Your task to perform on an android device: toggle translation in the chrome app Image 0: 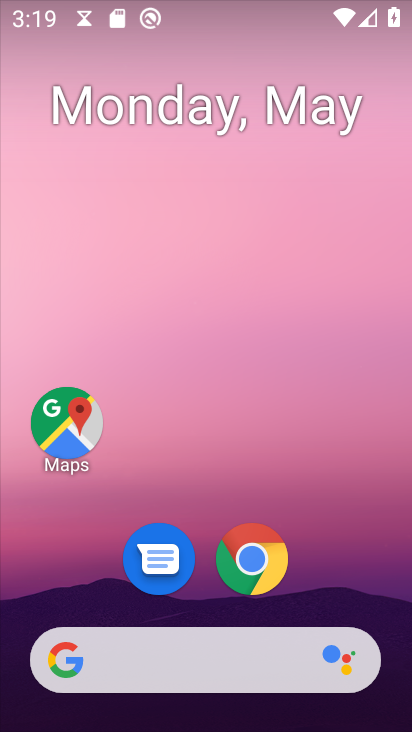
Step 0: drag from (295, 599) to (320, 316)
Your task to perform on an android device: toggle translation in the chrome app Image 1: 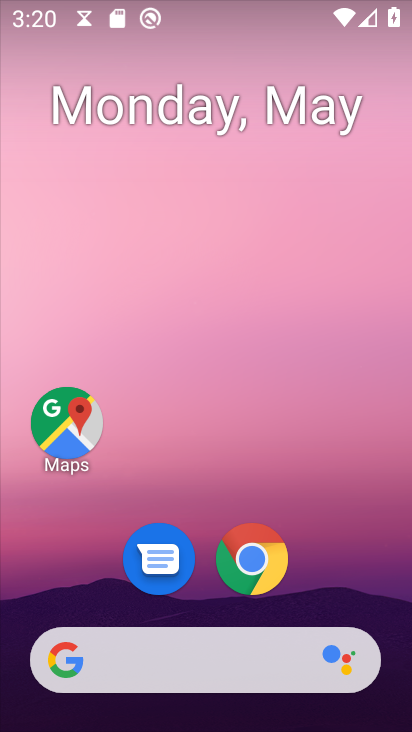
Step 1: click (253, 549)
Your task to perform on an android device: toggle translation in the chrome app Image 2: 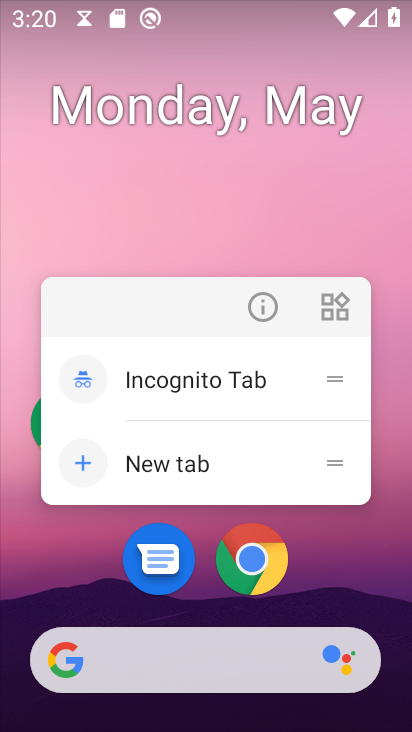
Step 2: click (260, 539)
Your task to perform on an android device: toggle translation in the chrome app Image 3: 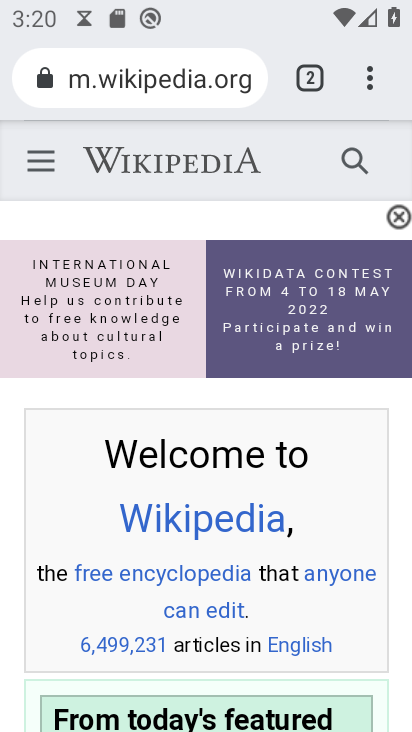
Step 3: click (358, 68)
Your task to perform on an android device: toggle translation in the chrome app Image 4: 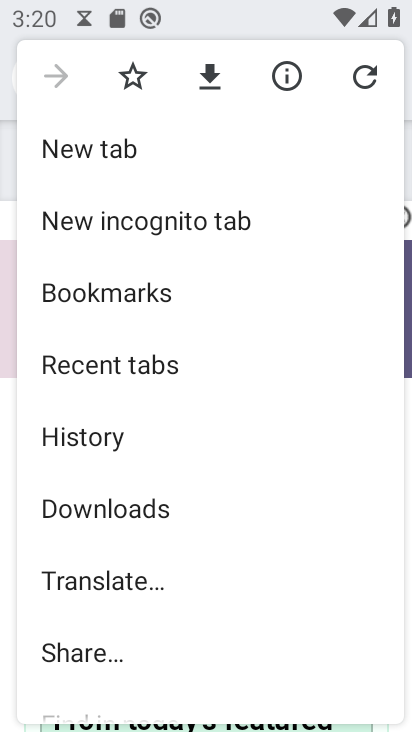
Step 4: drag from (225, 588) to (267, 245)
Your task to perform on an android device: toggle translation in the chrome app Image 5: 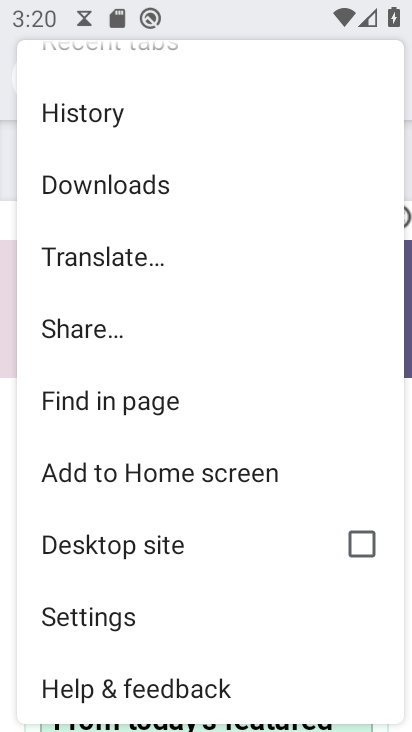
Step 5: click (116, 625)
Your task to perform on an android device: toggle translation in the chrome app Image 6: 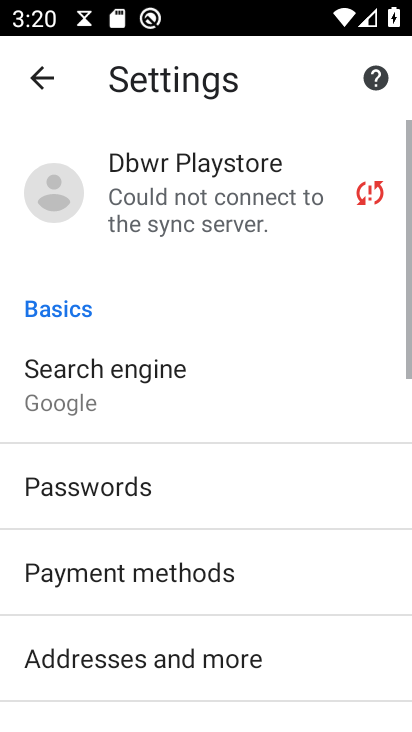
Step 6: drag from (191, 592) to (268, 237)
Your task to perform on an android device: toggle translation in the chrome app Image 7: 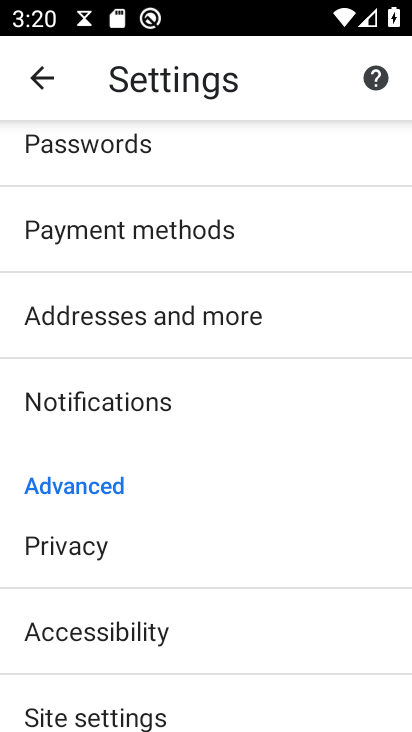
Step 7: drag from (173, 604) to (259, 262)
Your task to perform on an android device: toggle translation in the chrome app Image 8: 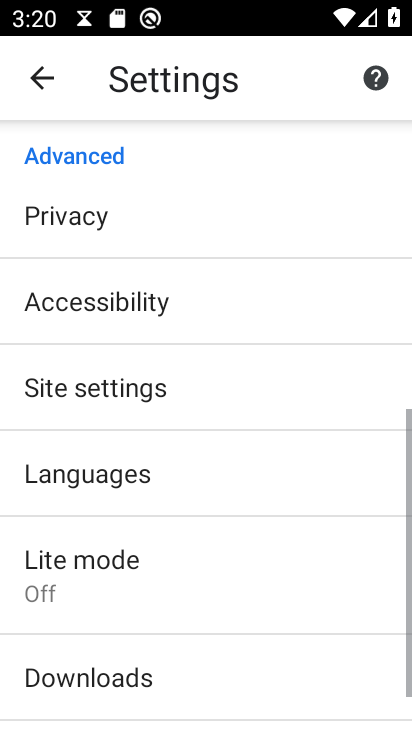
Step 8: click (165, 488)
Your task to perform on an android device: toggle translation in the chrome app Image 9: 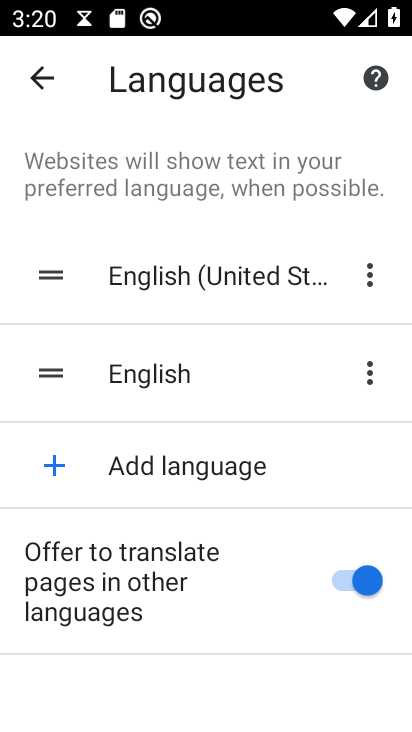
Step 9: click (340, 582)
Your task to perform on an android device: toggle translation in the chrome app Image 10: 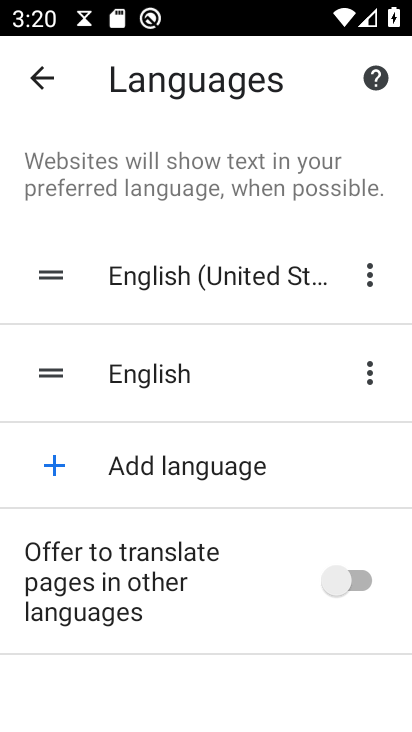
Step 10: task complete